Your task to perform on an android device: install app "Microsoft Excel" Image 0: 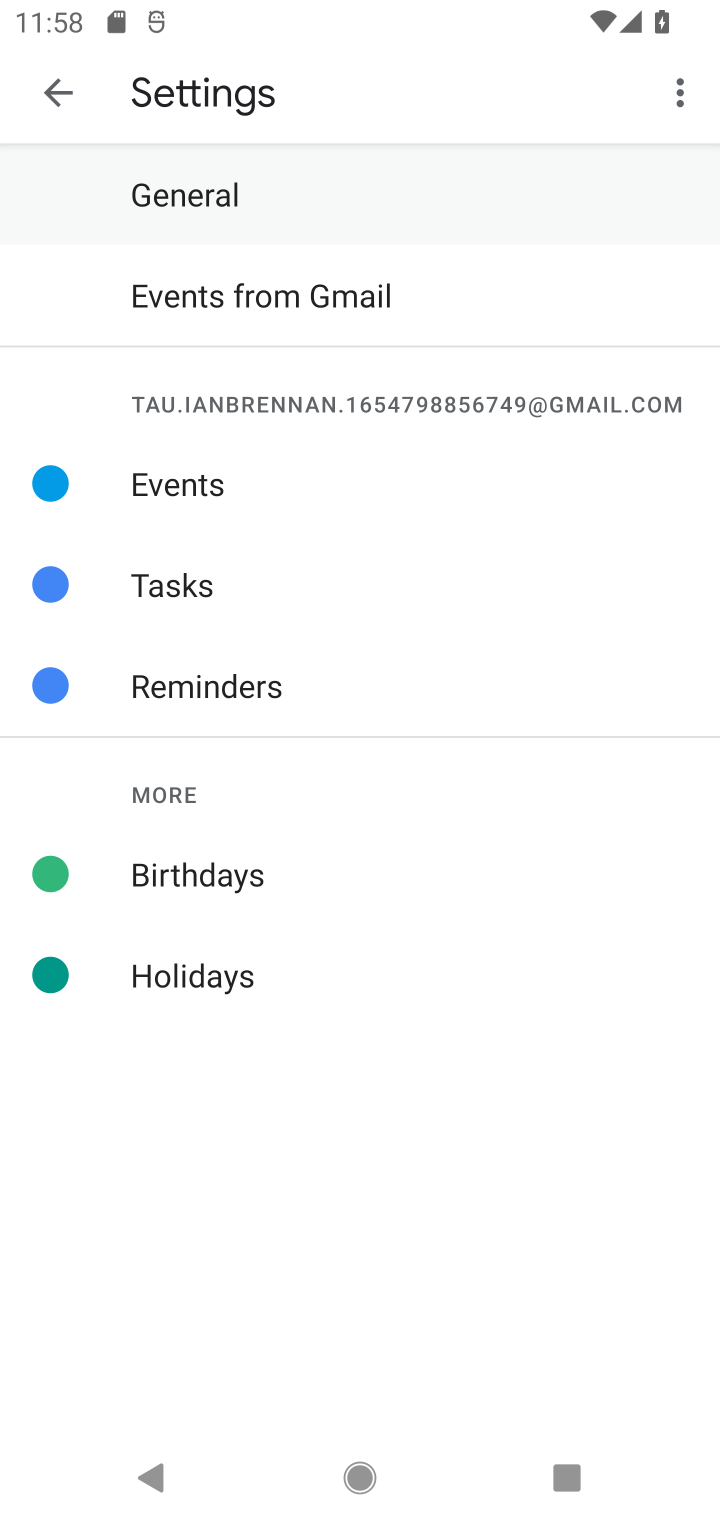
Step 0: press home button
Your task to perform on an android device: install app "Microsoft Excel" Image 1: 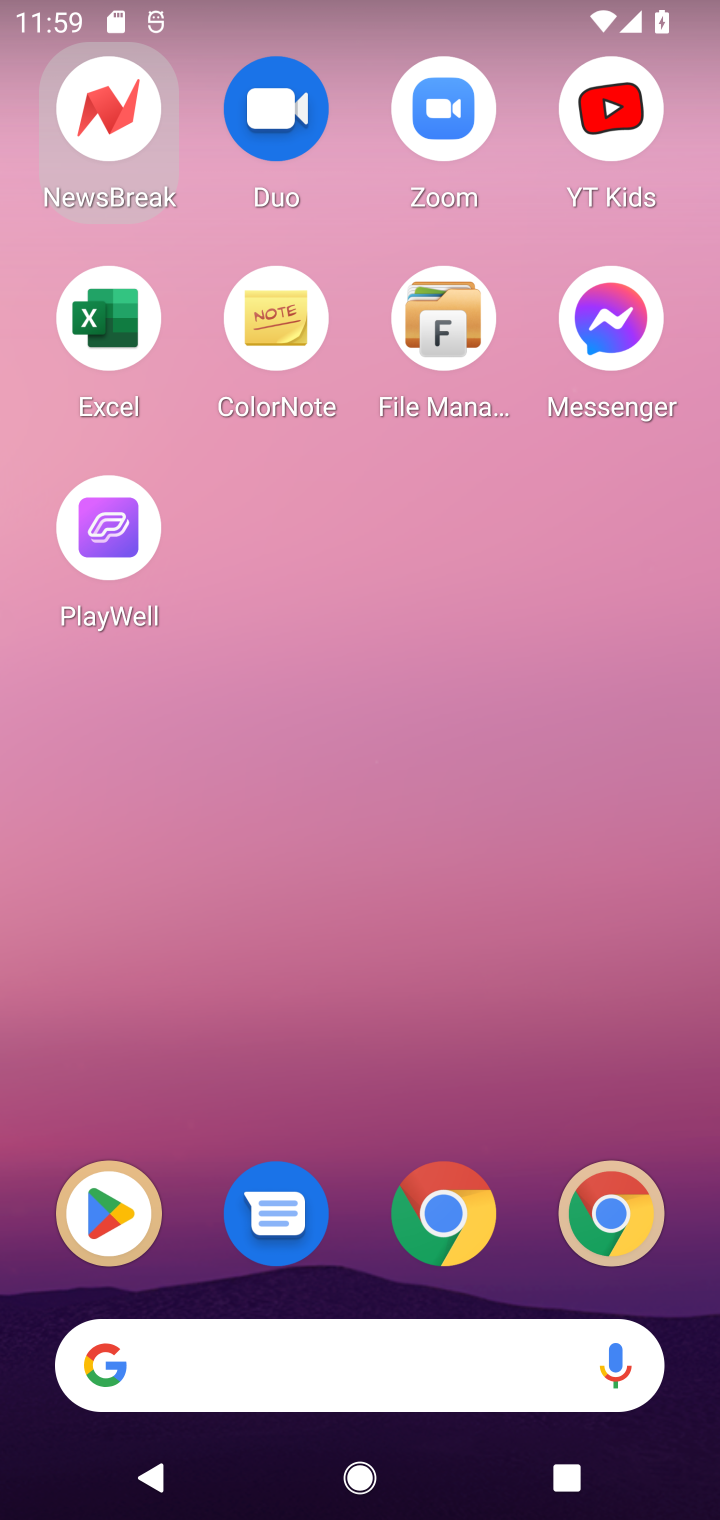
Step 1: drag from (405, 1365) to (406, 377)
Your task to perform on an android device: install app "Microsoft Excel" Image 2: 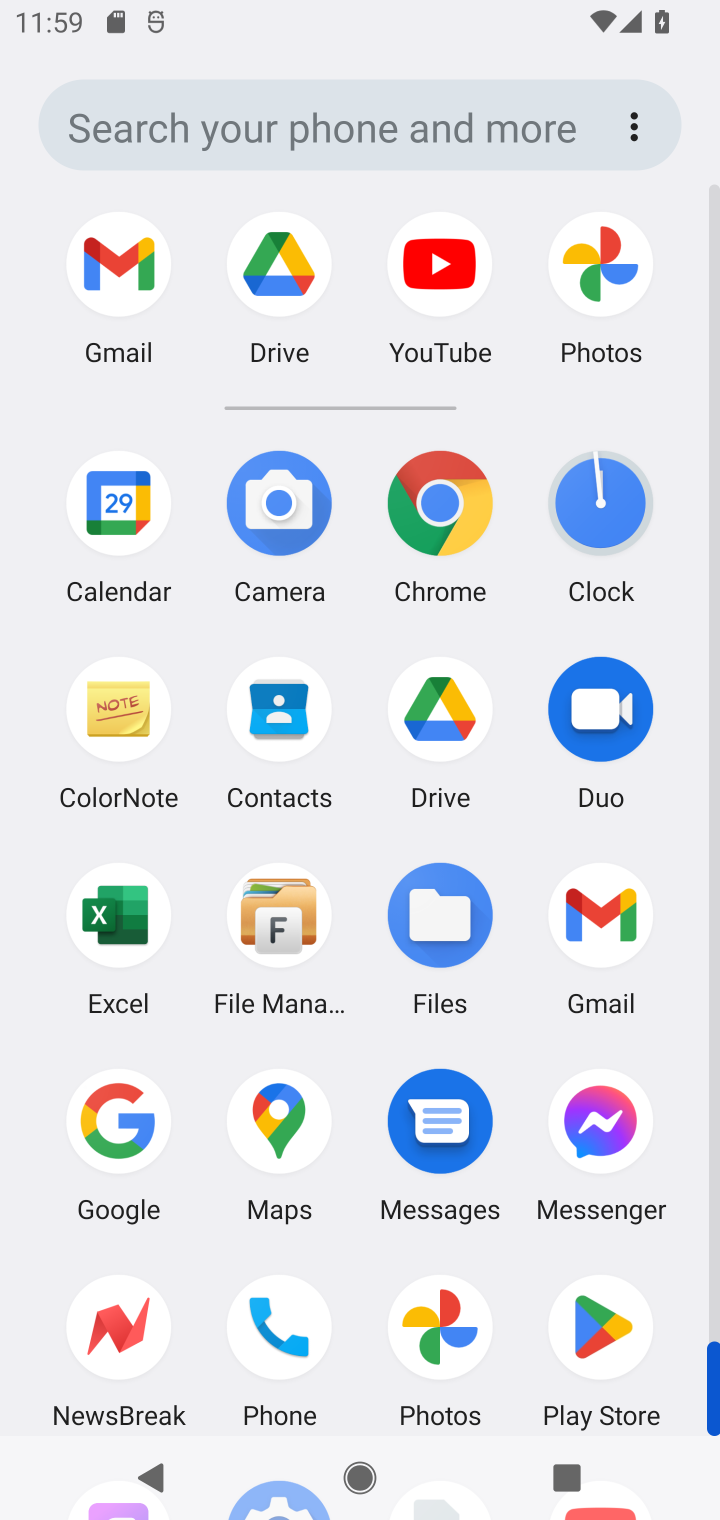
Step 2: click (632, 1325)
Your task to perform on an android device: install app "Microsoft Excel" Image 3: 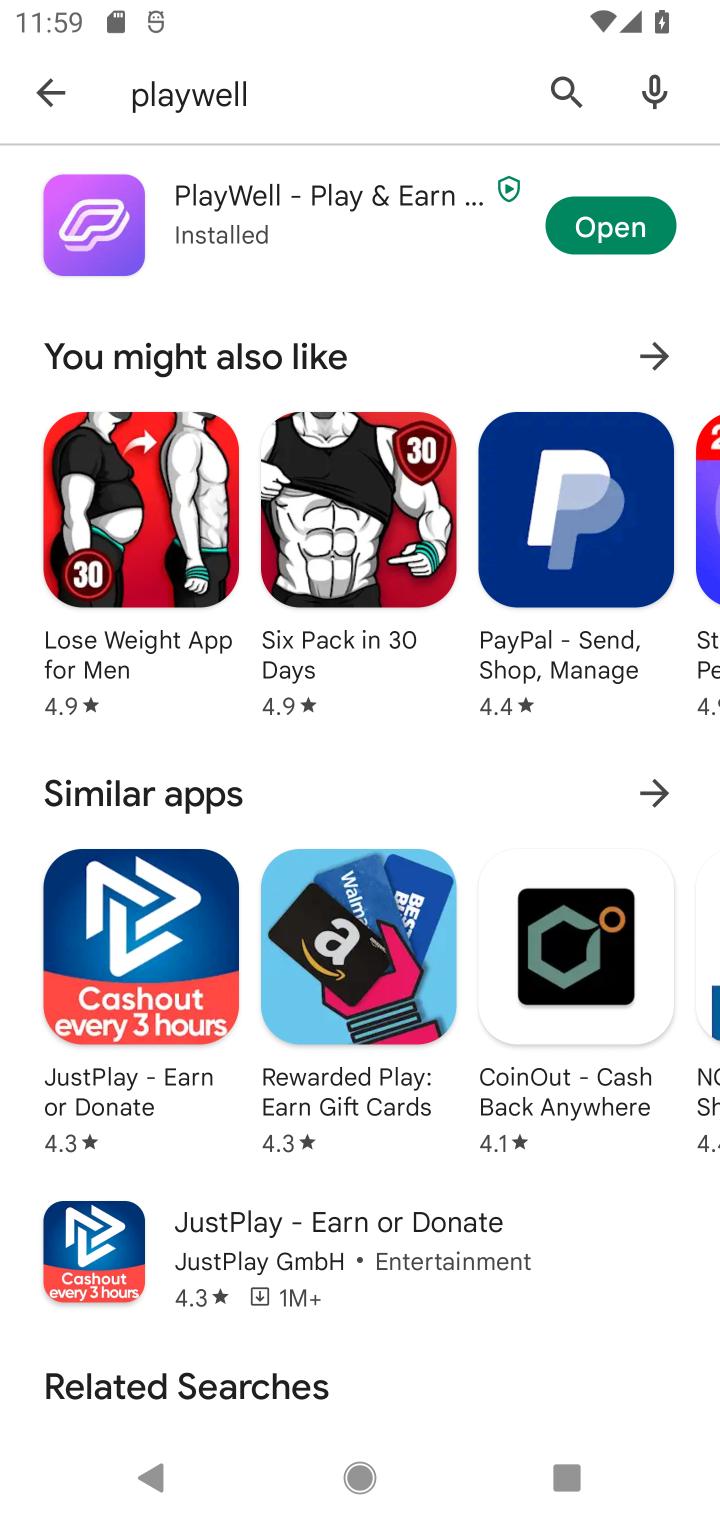
Step 3: click (562, 78)
Your task to perform on an android device: install app "Microsoft Excel" Image 4: 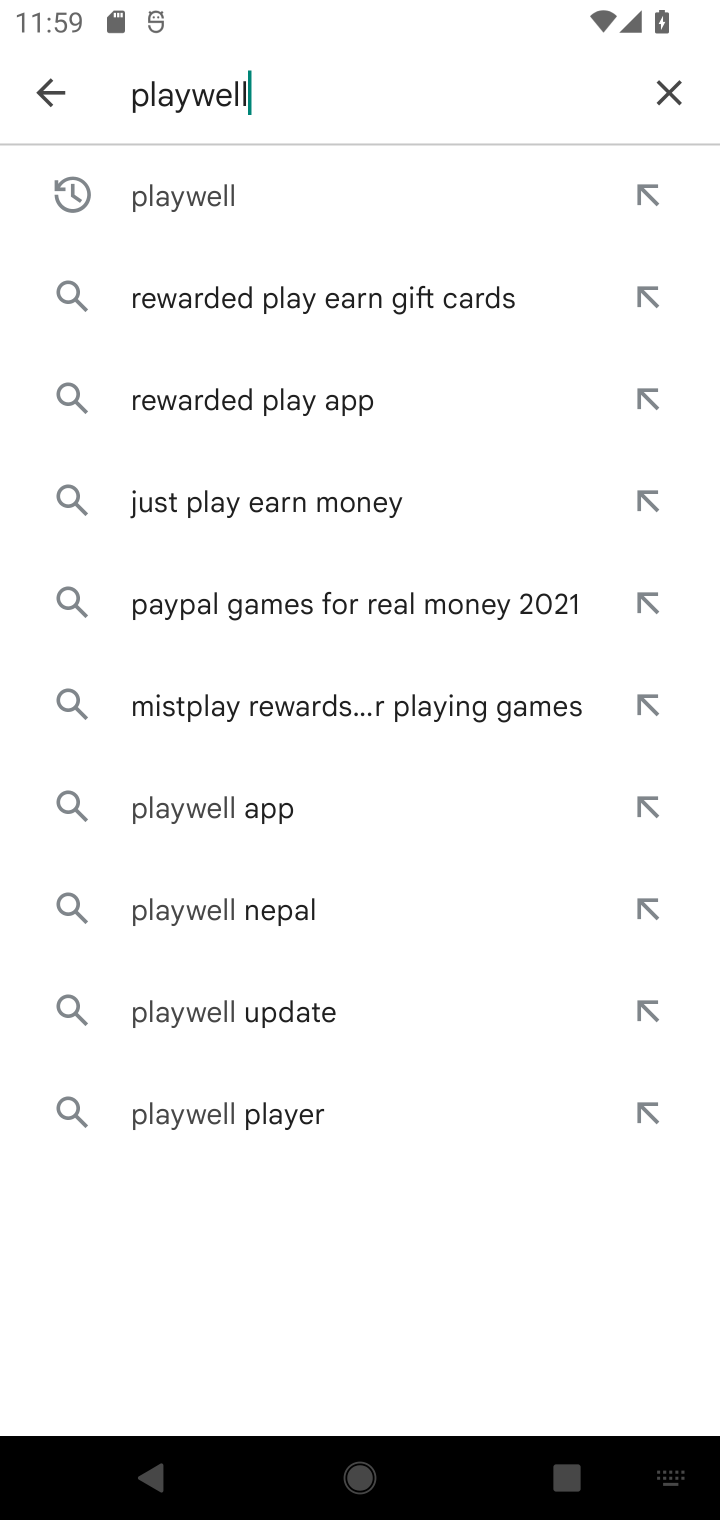
Step 4: click (649, 81)
Your task to perform on an android device: install app "Microsoft Excel" Image 5: 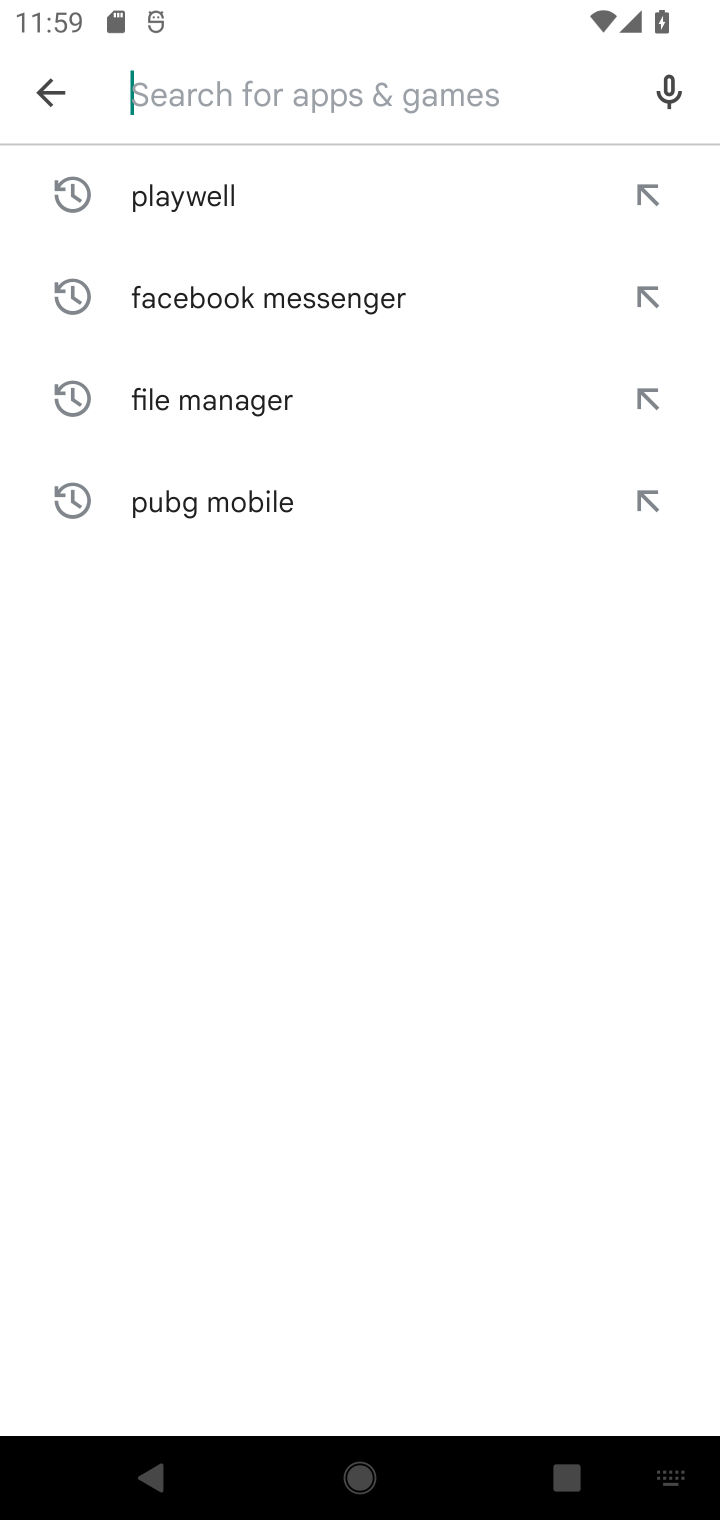
Step 5: type "Microsoft Excel"
Your task to perform on an android device: install app "Microsoft Excel" Image 6: 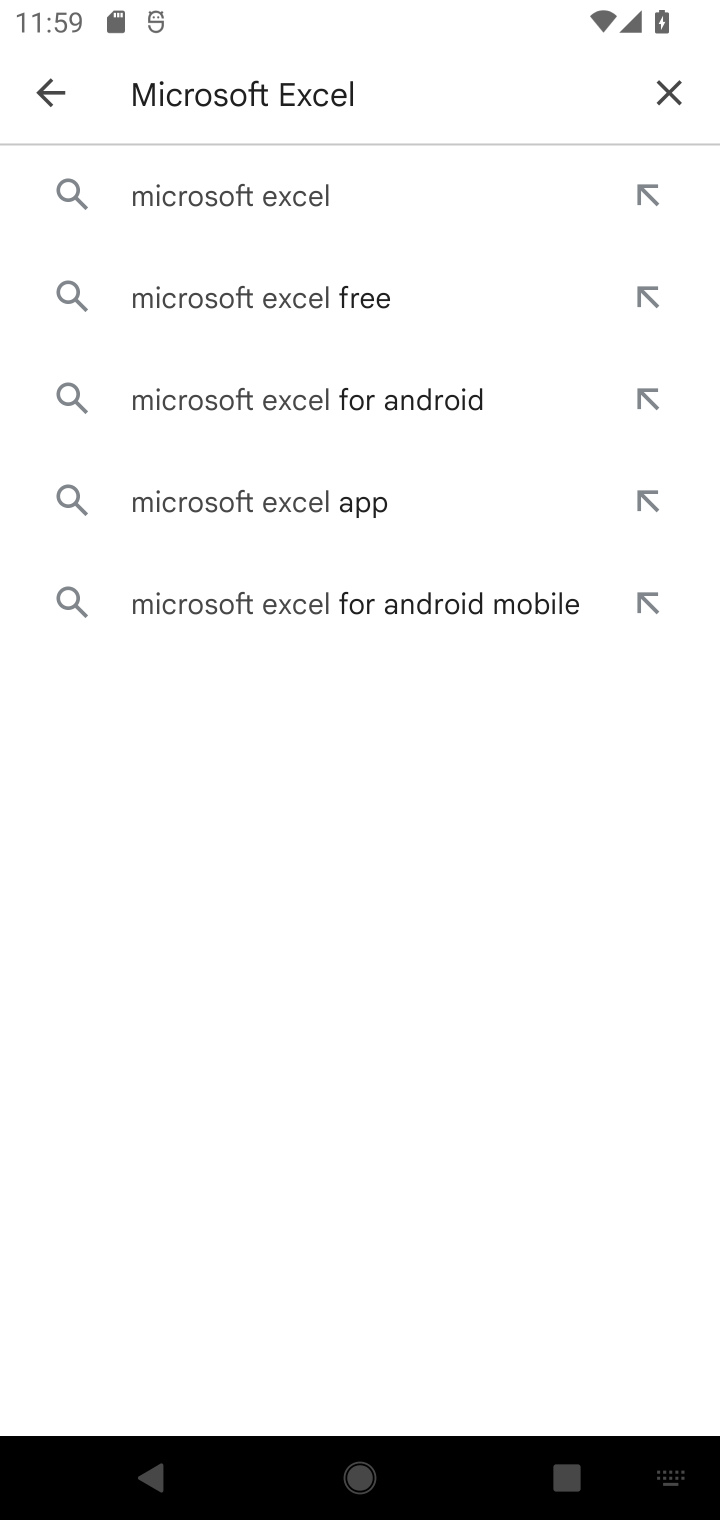
Step 6: click (228, 180)
Your task to perform on an android device: install app "Microsoft Excel" Image 7: 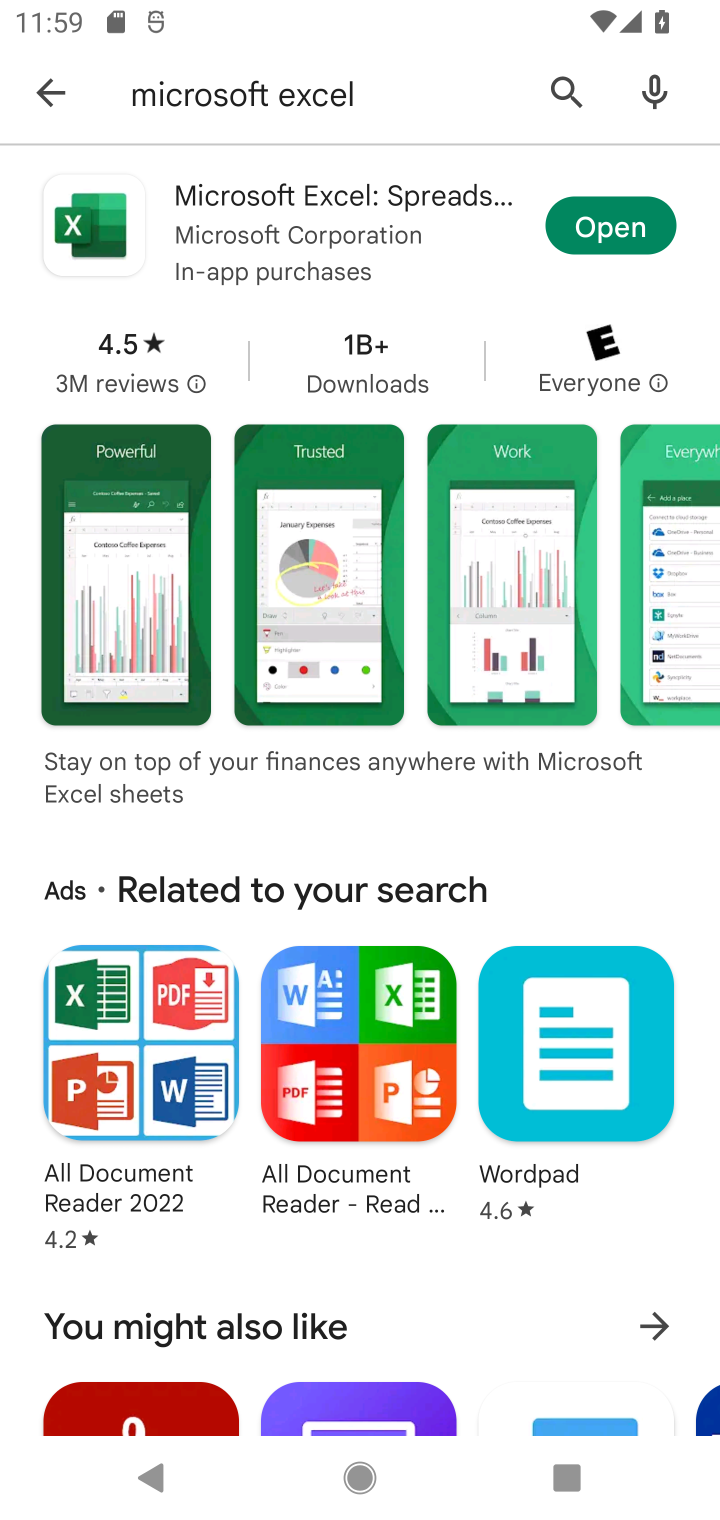
Step 7: task complete